Your task to perform on an android device: turn off airplane mode Image 0: 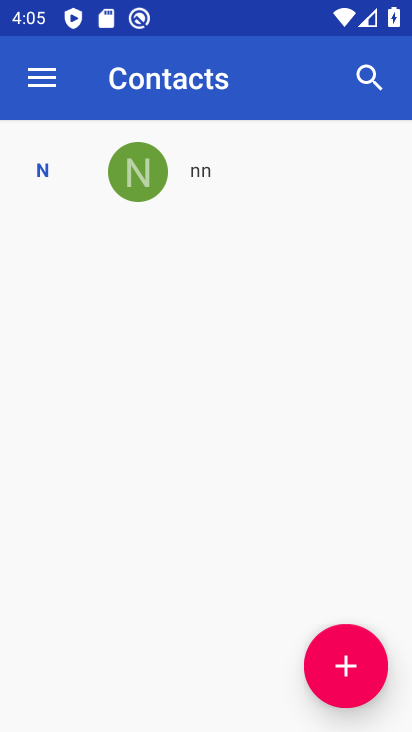
Step 0: press home button
Your task to perform on an android device: turn off airplane mode Image 1: 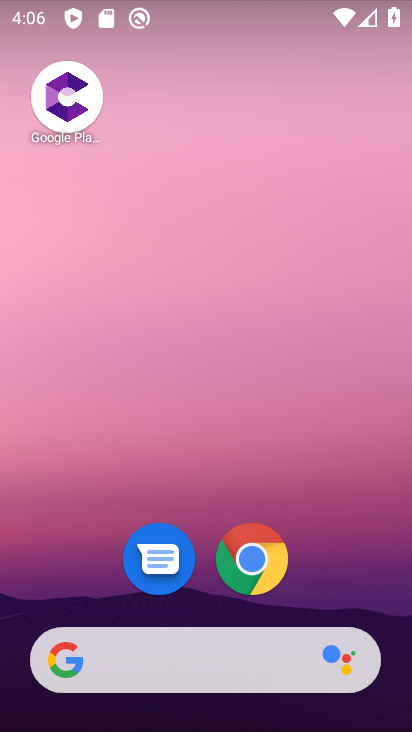
Step 1: drag from (191, 624) to (113, 5)
Your task to perform on an android device: turn off airplane mode Image 2: 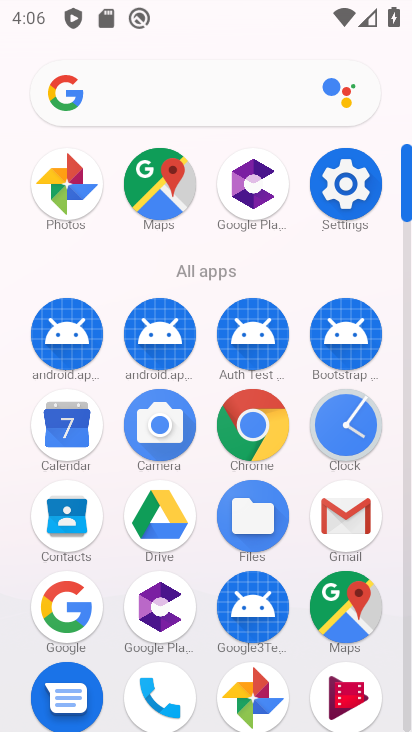
Step 2: click (344, 208)
Your task to perform on an android device: turn off airplane mode Image 3: 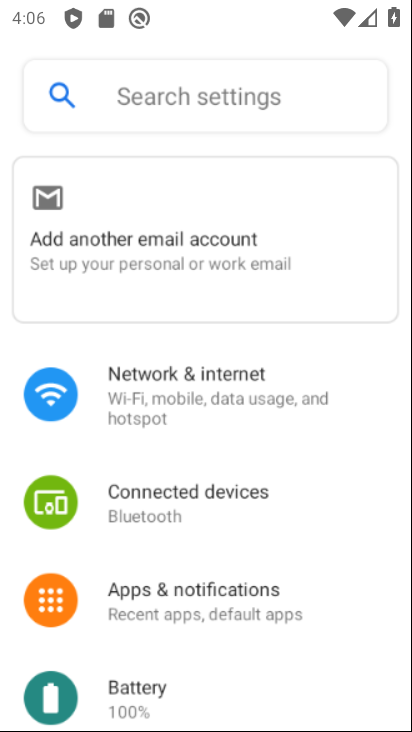
Step 3: drag from (234, 667) to (197, 297)
Your task to perform on an android device: turn off airplane mode Image 4: 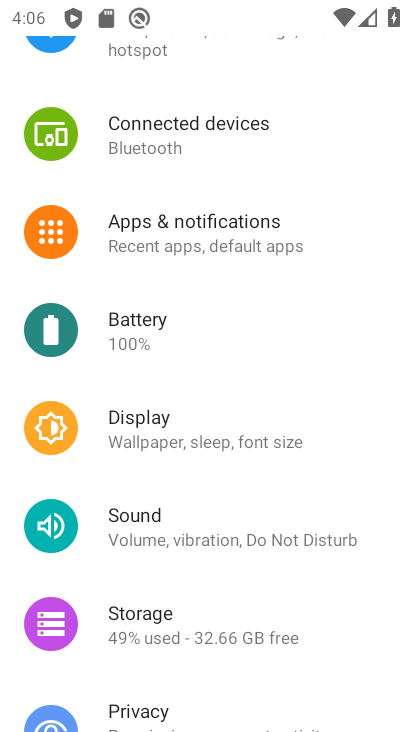
Step 4: drag from (143, 178) to (173, 627)
Your task to perform on an android device: turn off airplane mode Image 5: 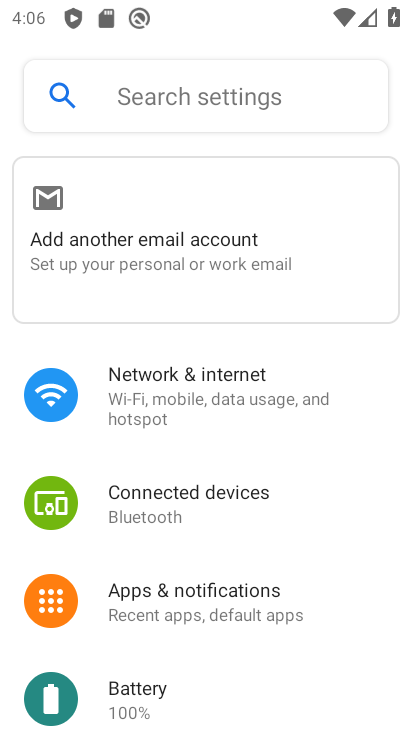
Step 5: click (184, 398)
Your task to perform on an android device: turn off airplane mode Image 6: 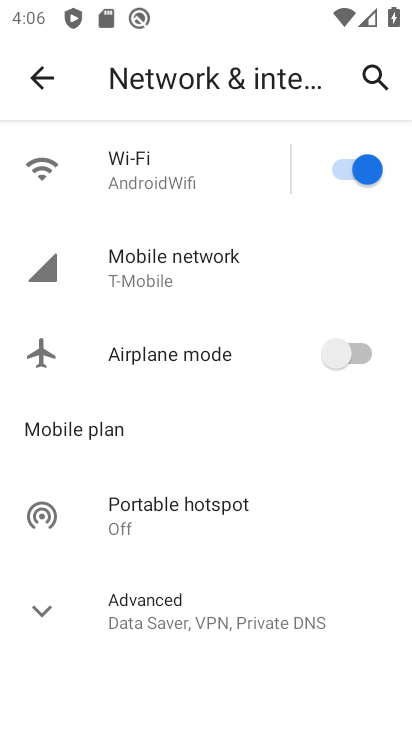
Step 6: task complete